Your task to perform on an android device: Open Google Chrome Image 0: 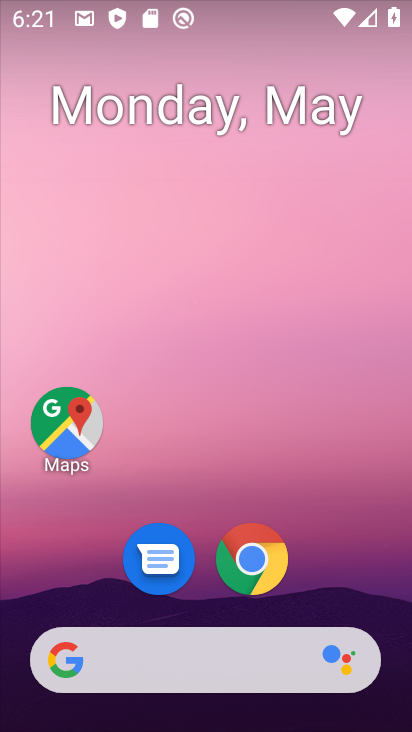
Step 0: drag from (392, 653) to (285, 14)
Your task to perform on an android device: Open Google Chrome Image 1: 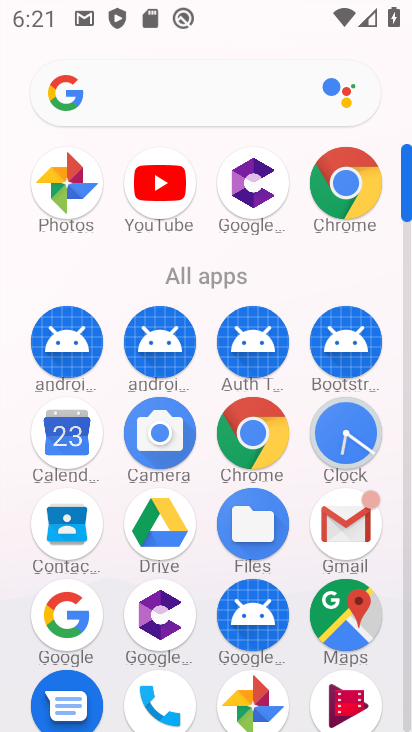
Step 1: click (346, 189)
Your task to perform on an android device: Open Google Chrome Image 2: 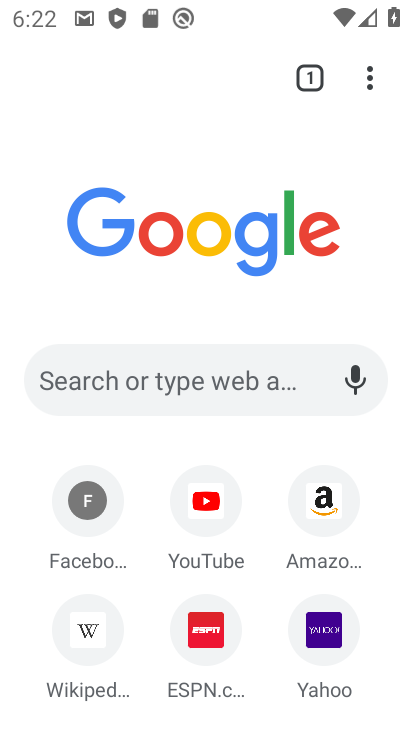
Step 2: task complete